Your task to perform on an android device: Search for vegetarian restaurants on Maps Image 0: 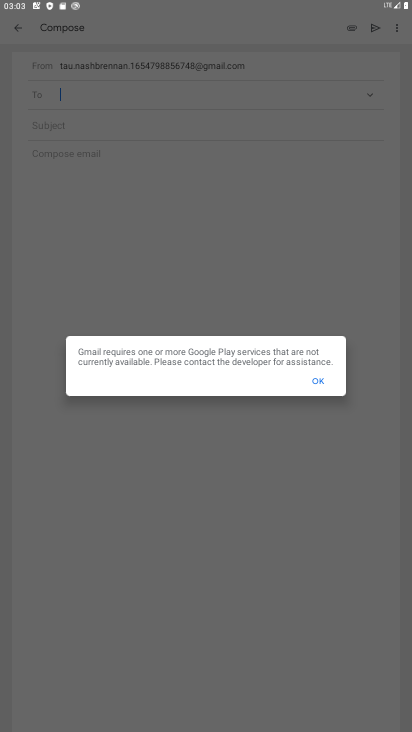
Step 0: press home button
Your task to perform on an android device: Search for vegetarian restaurants on Maps Image 1: 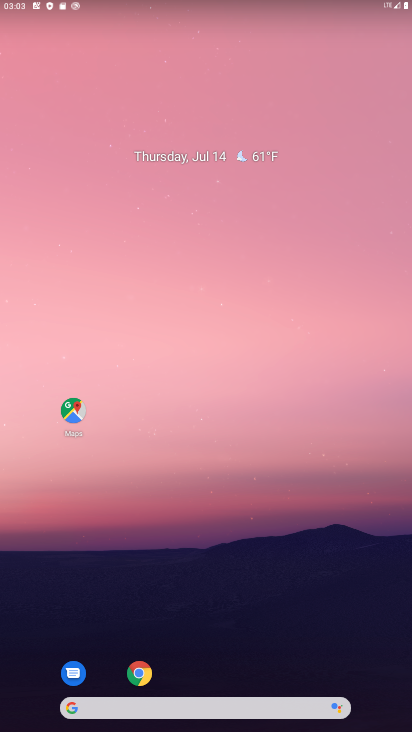
Step 1: click (60, 413)
Your task to perform on an android device: Search for vegetarian restaurants on Maps Image 2: 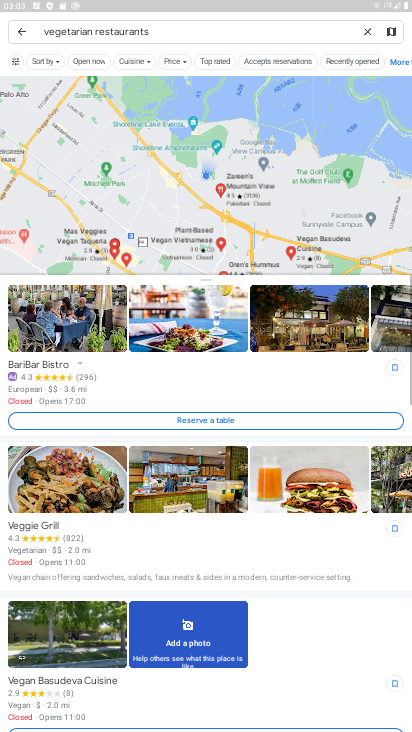
Step 2: task complete